Your task to perform on an android device: What is the news today? Image 0: 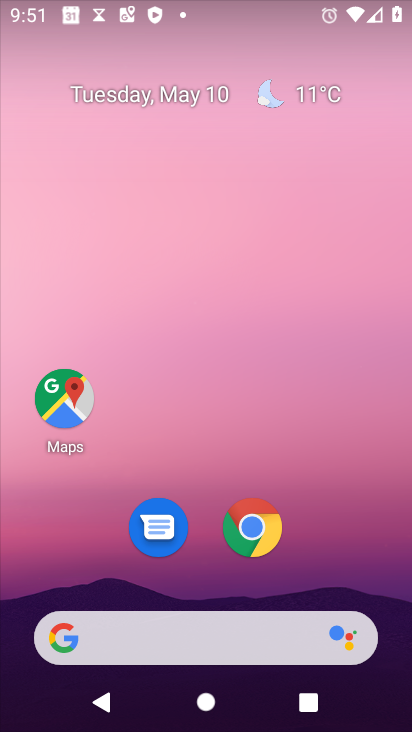
Step 0: drag from (10, 331) to (394, 471)
Your task to perform on an android device: What is the news today? Image 1: 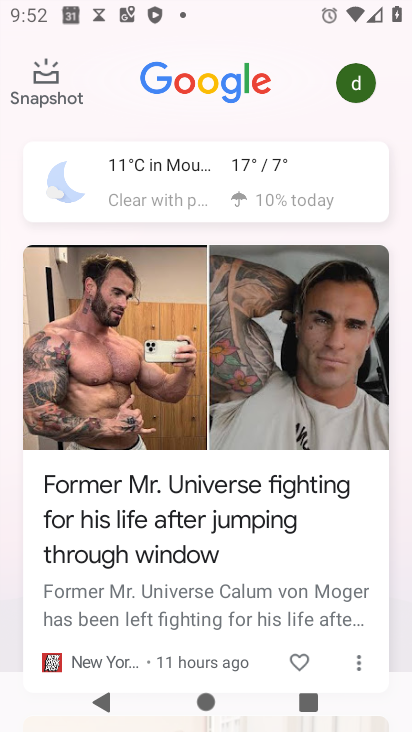
Step 1: task complete